Your task to perform on an android device: turn notification dots off Image 0: 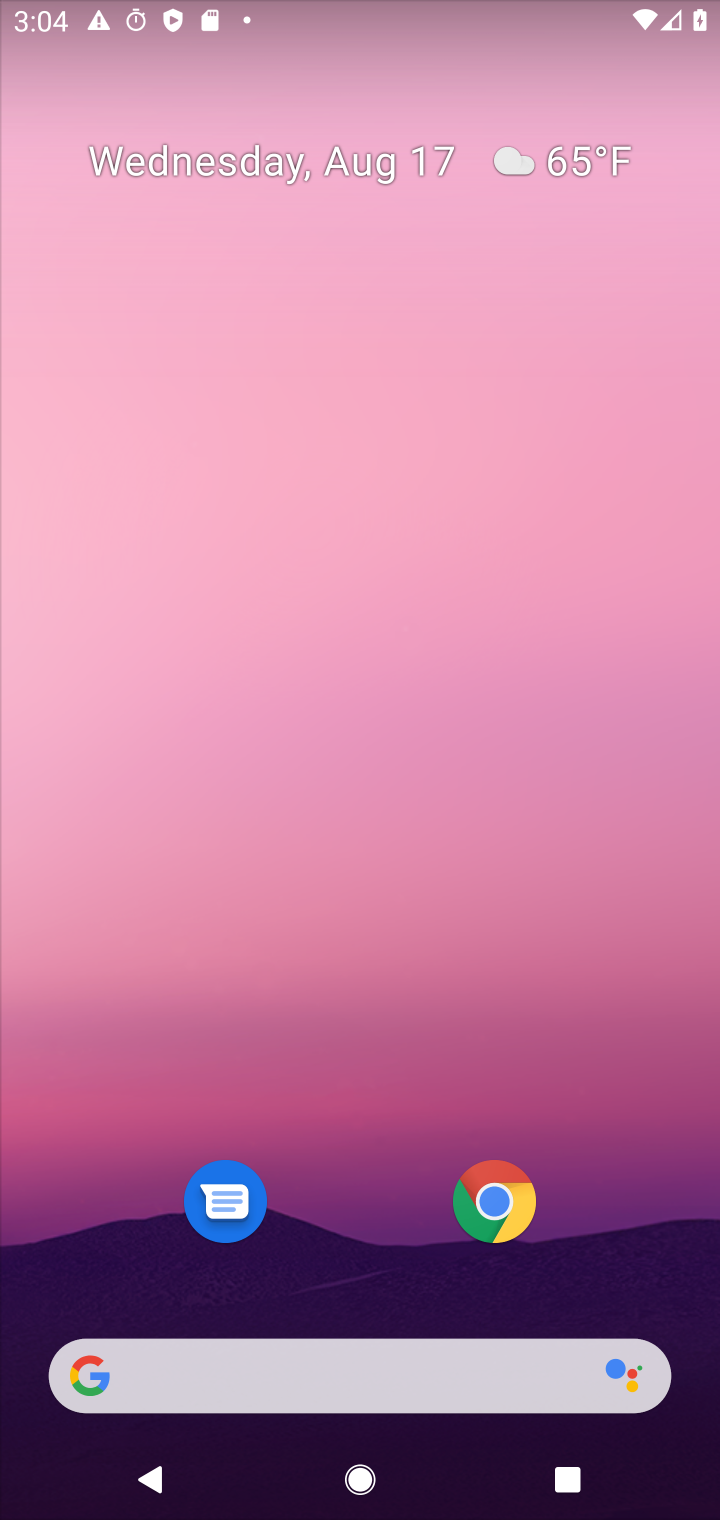
Step 0: drag from (344, 734) to (426, 113)
Your task to perform on an android device: turn notification dots off Image 1: 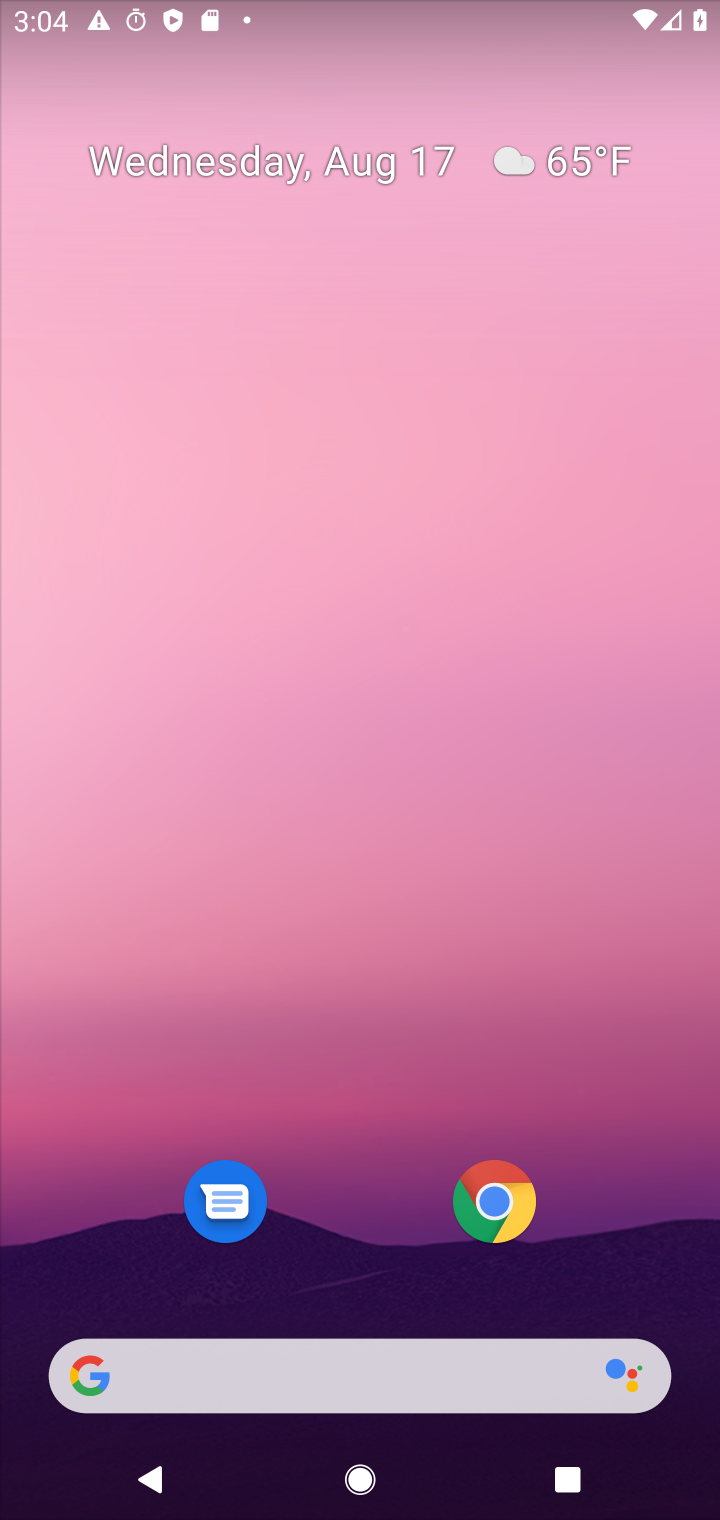
Step 1: drag from (424, 924) to (508, 7)
Your task to perform on an android device: turn notification dots off Image 2: 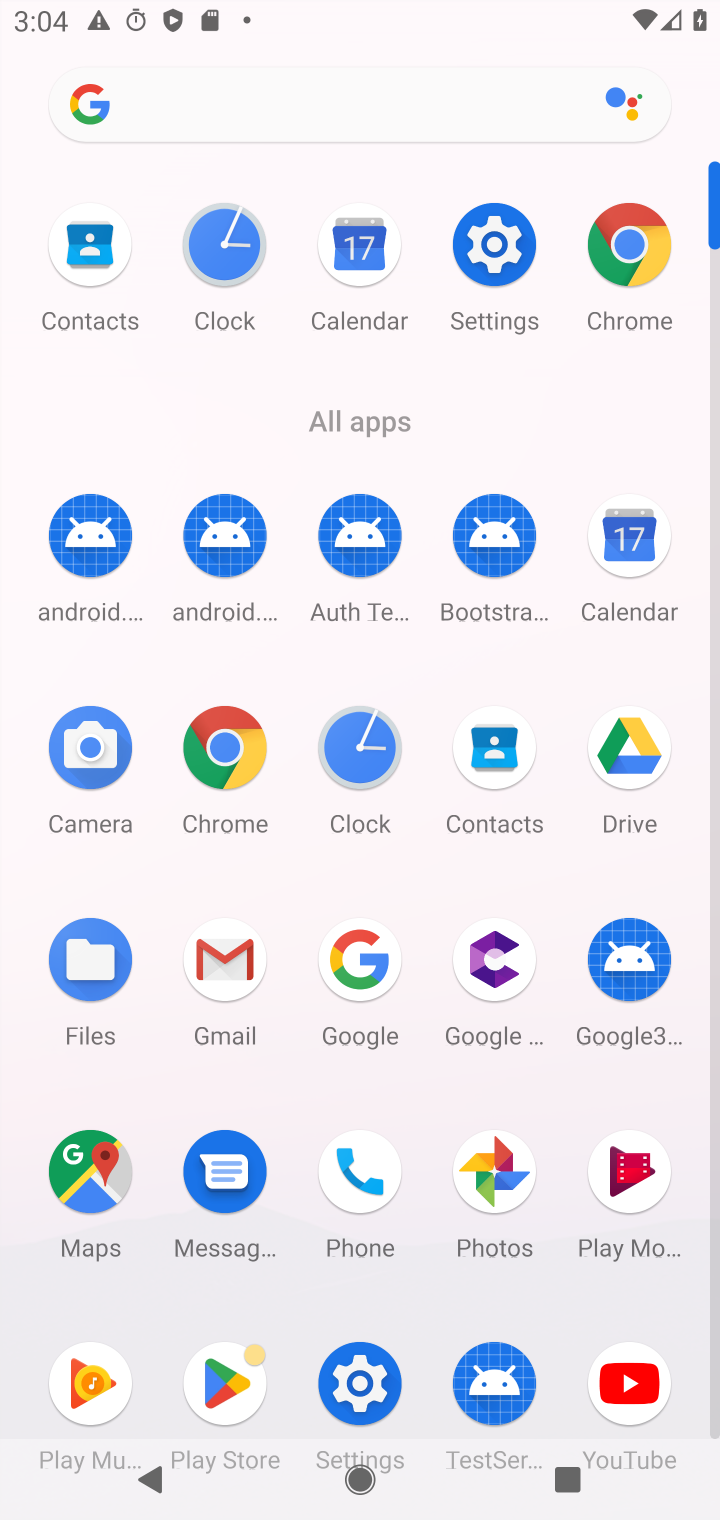
Step 2: click (505, 231)
Your task to perform on an android device: turn notification dots off Image 3: 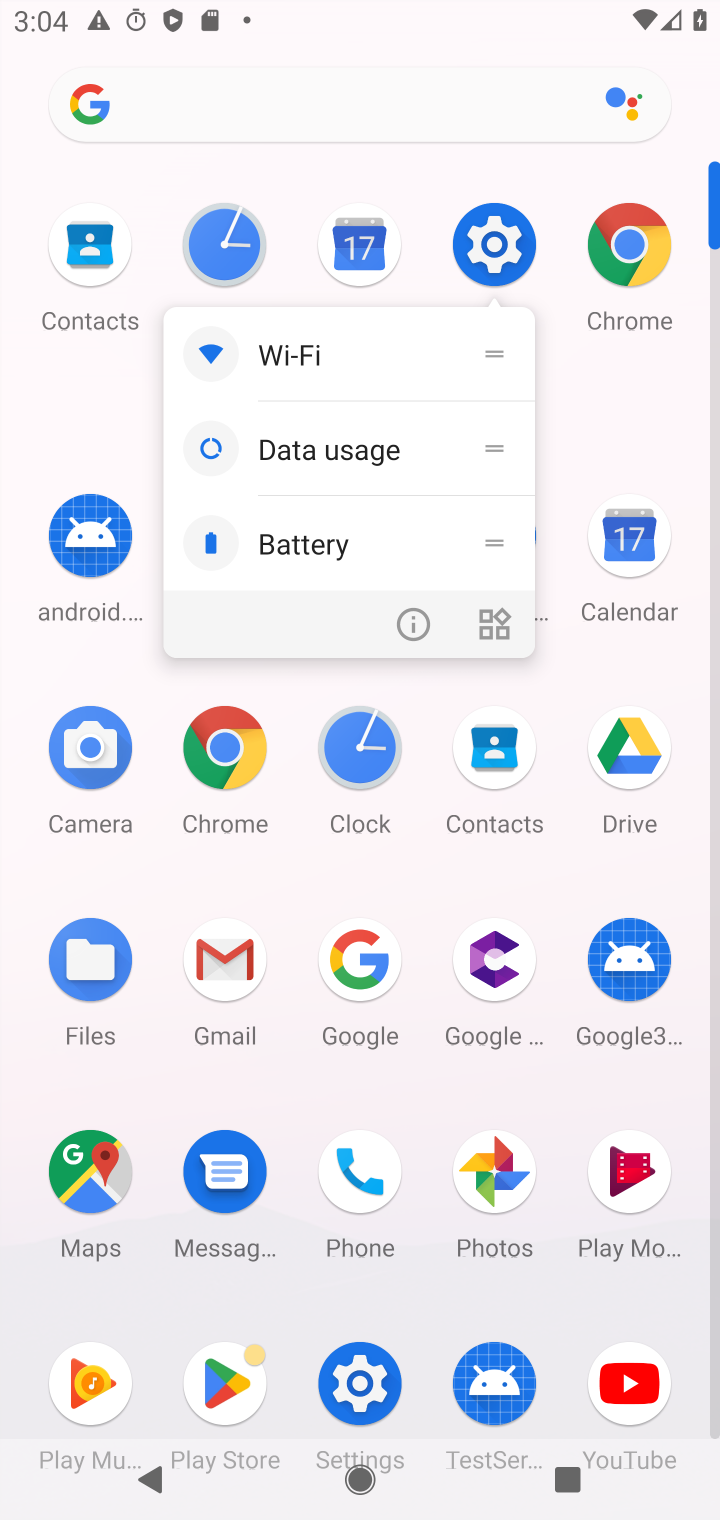
Step 3: click (505, 231)
Your task to perform on an android device: turn notification dots off Image 4: 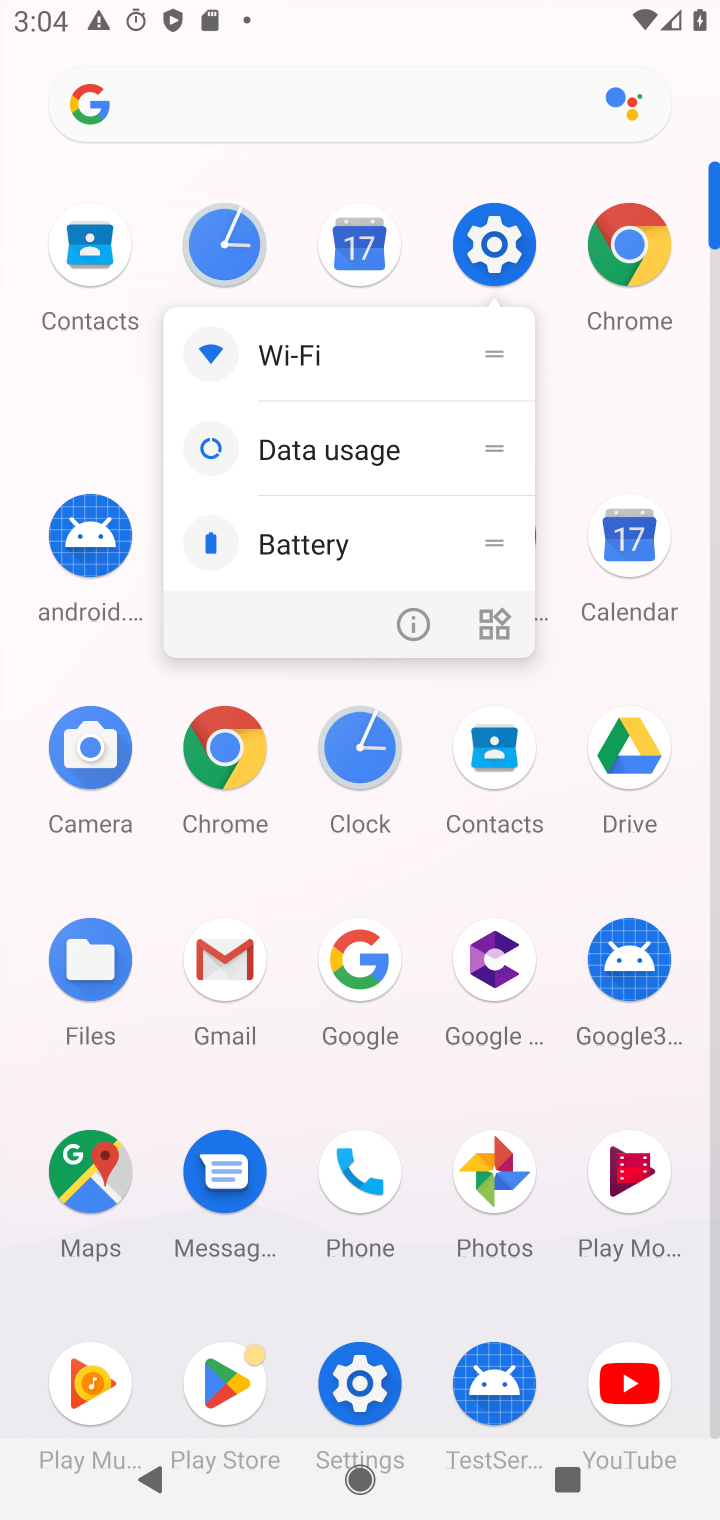
Step 4: click (515, 239)
Your task to perform on an android device: turn notification dots off Image 5: 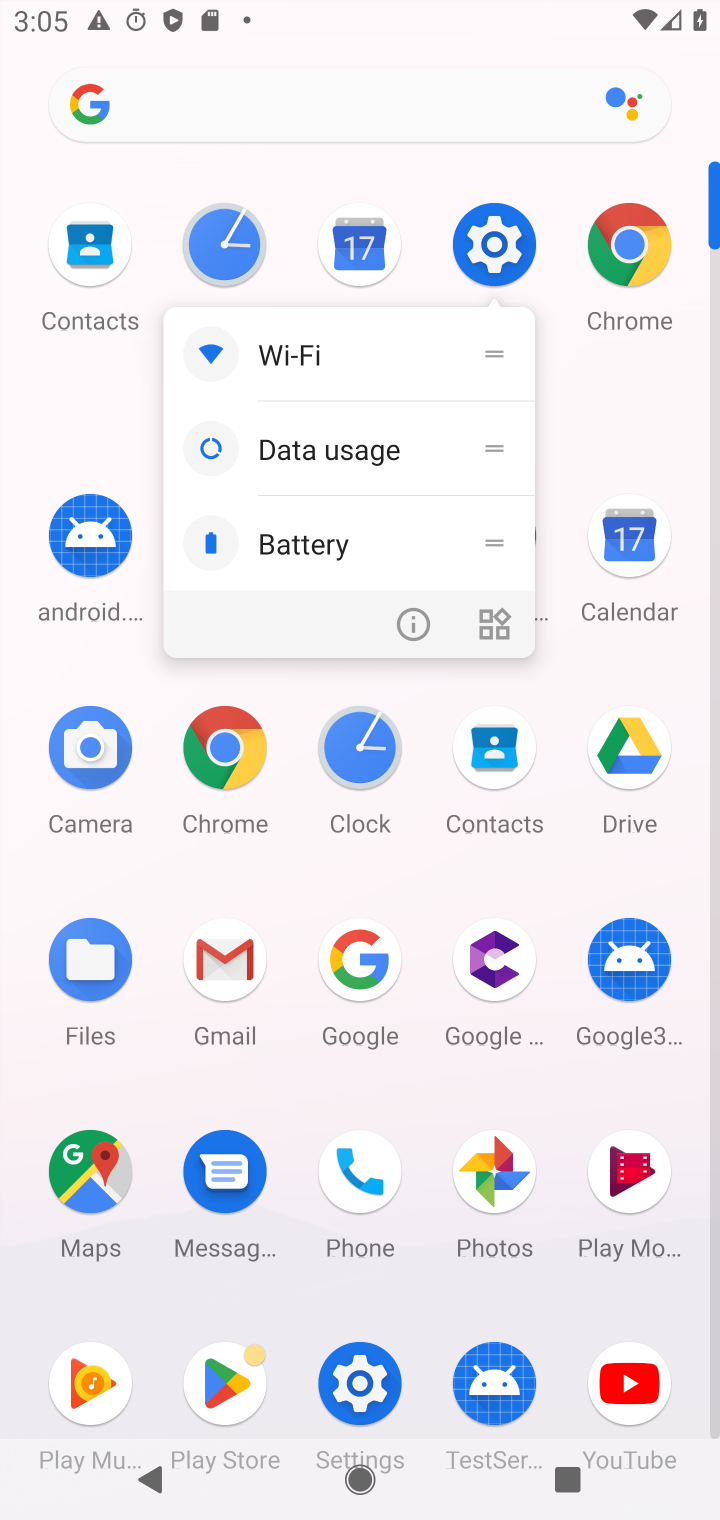
Step 5: click (501, 235)
Your task to perform on an android device: turn notification dots off Image 6: 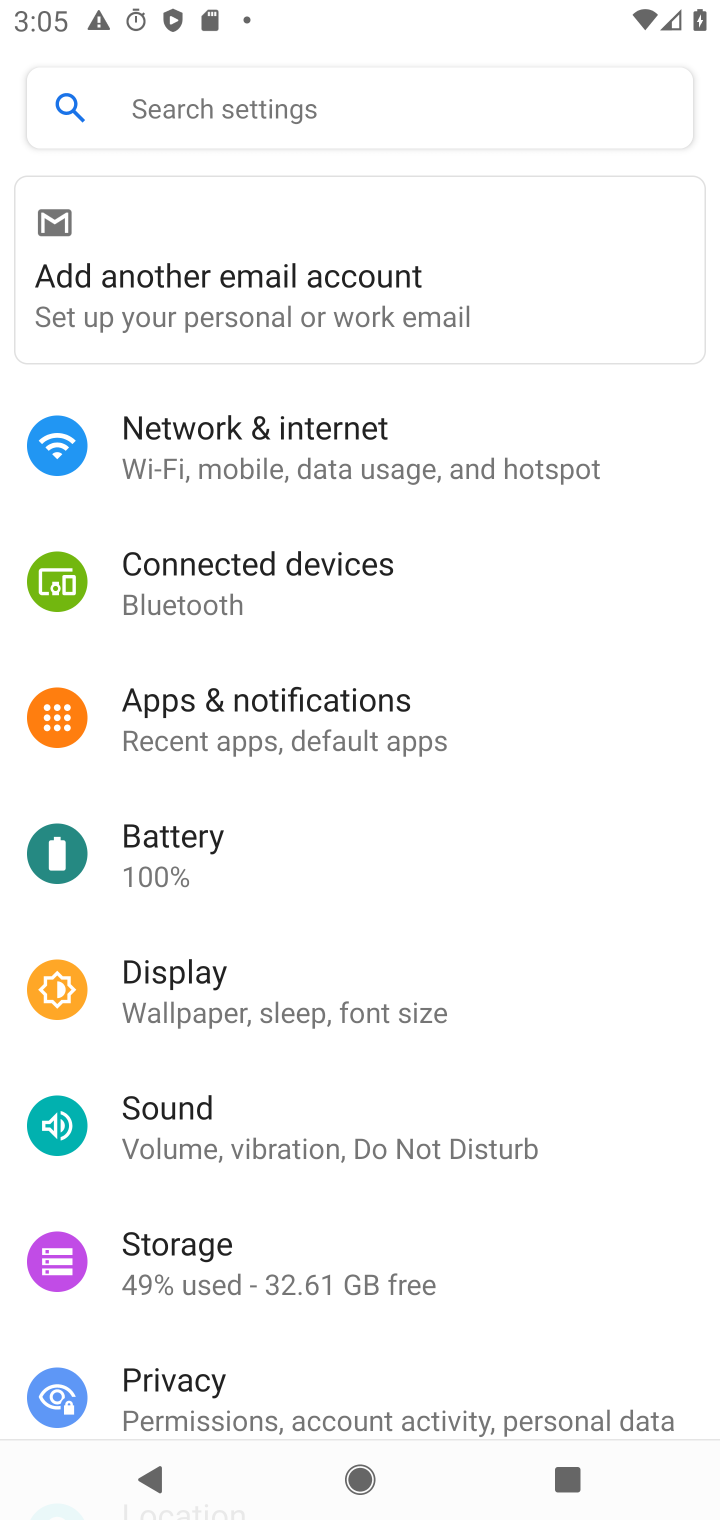
Step 6: click (378, 514)
Your task to perform on an android device: turn notification dots off Image 7: 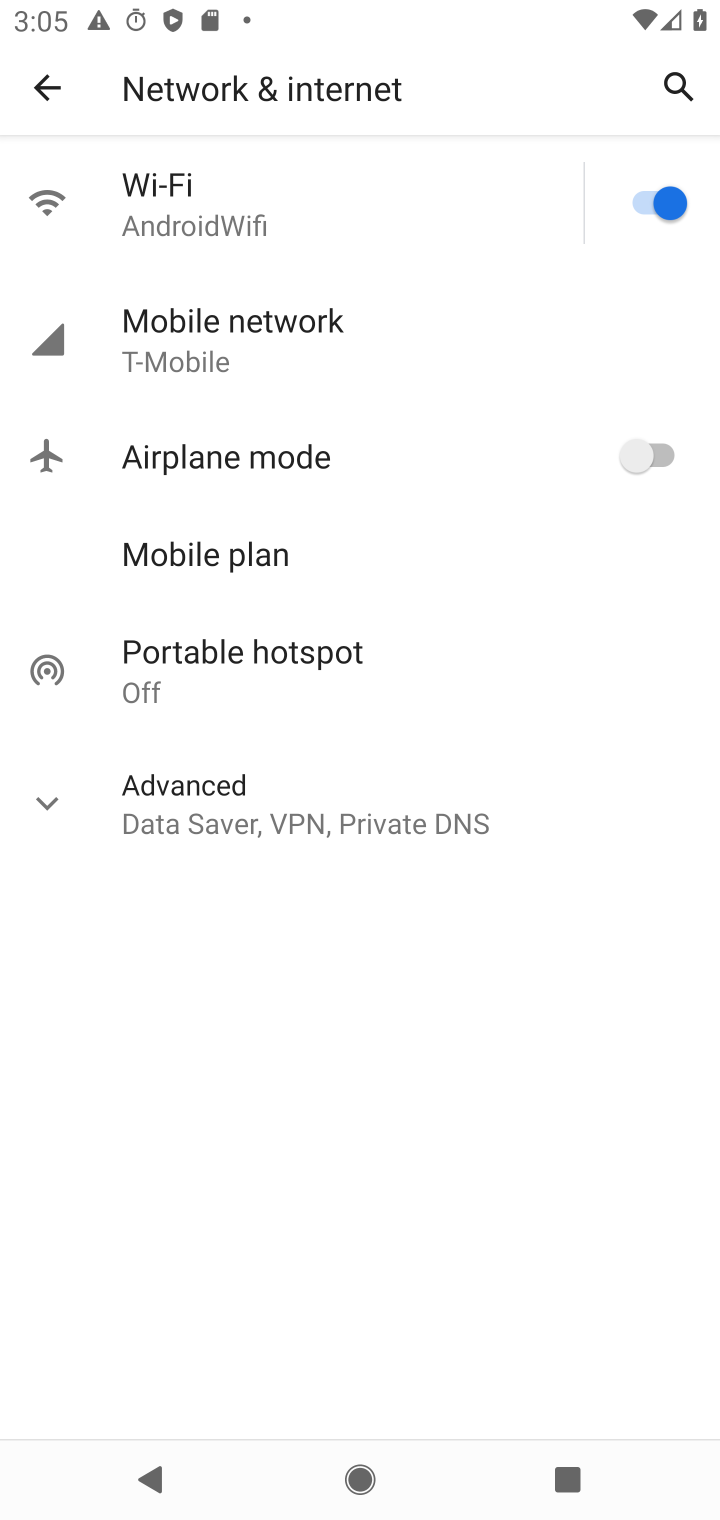
Step 7: press back button
Your task to perform on an android device: turn notification dots off Image 8: 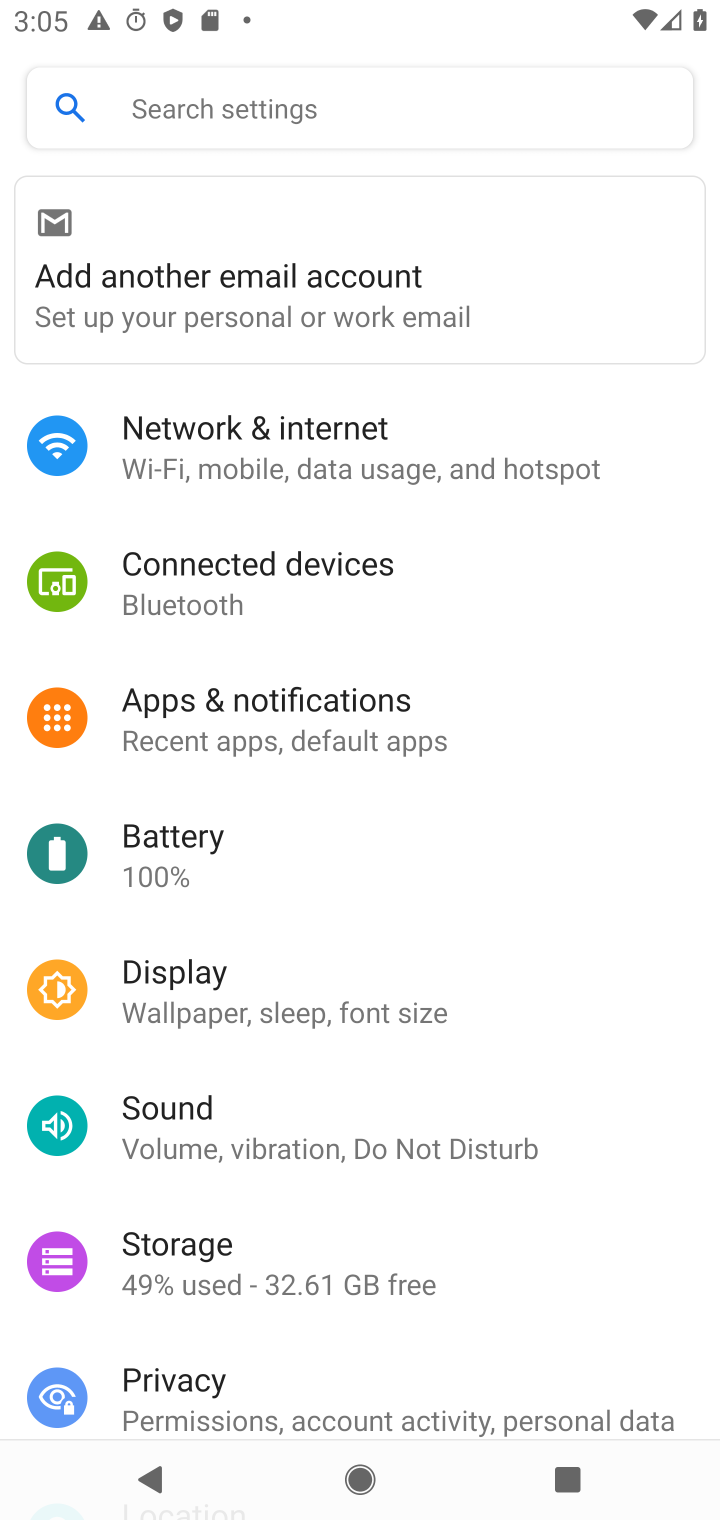
Step 8: click (487, 699)
Your task to perform on an android device: turn notification dots off Image 9: 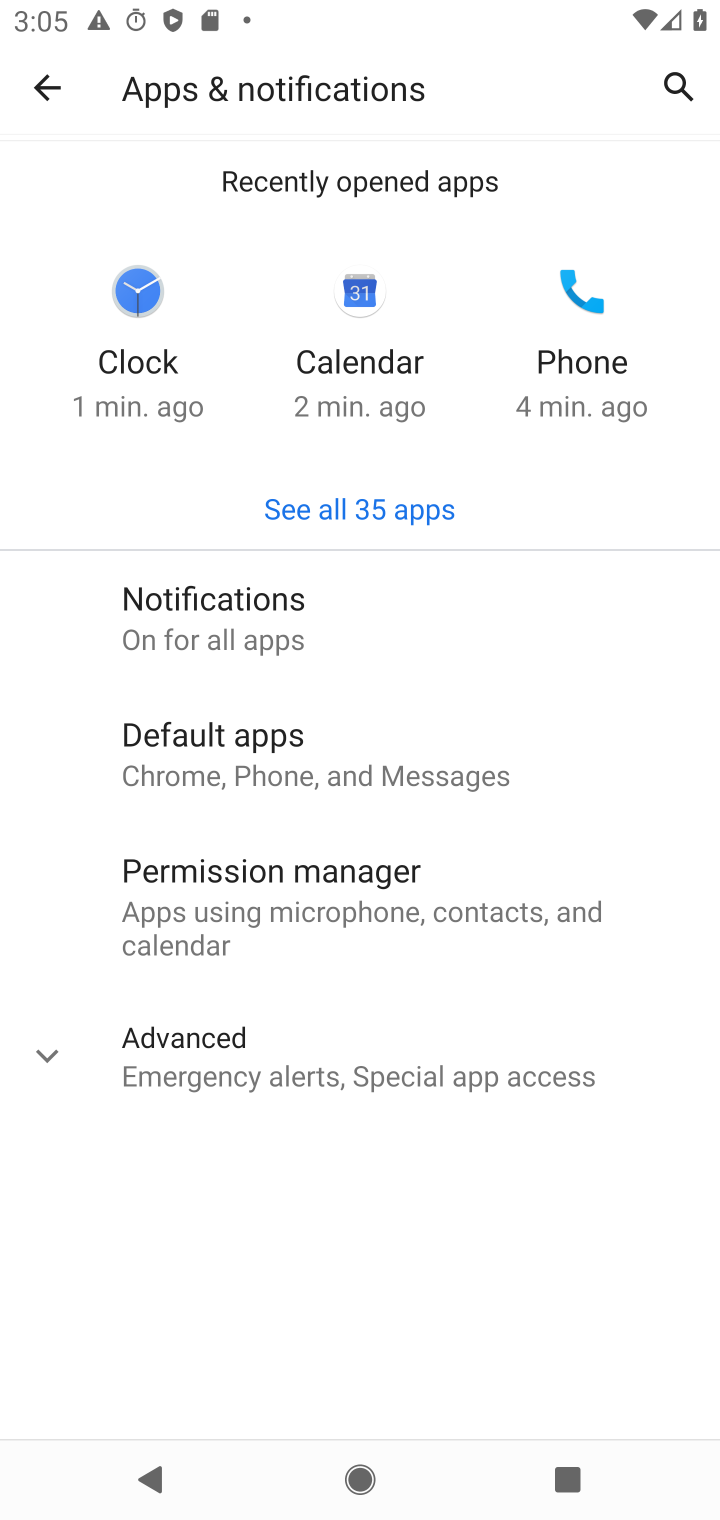
Step 9: click (487, 691)
Your task to perform on an android device: turn notification dots off Image 10: 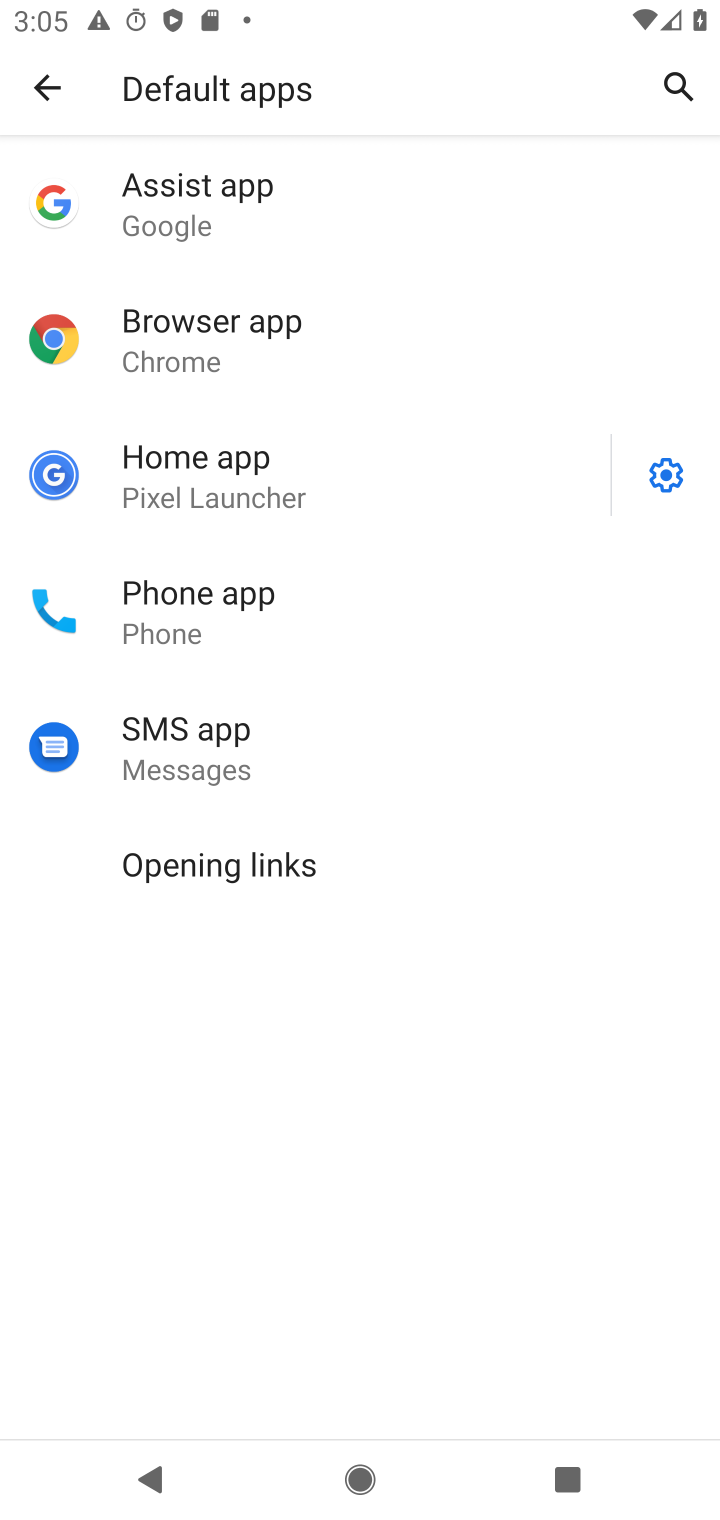
Step 10: press back button
Your task to perform on an android device: turn notification dots off Image 11: 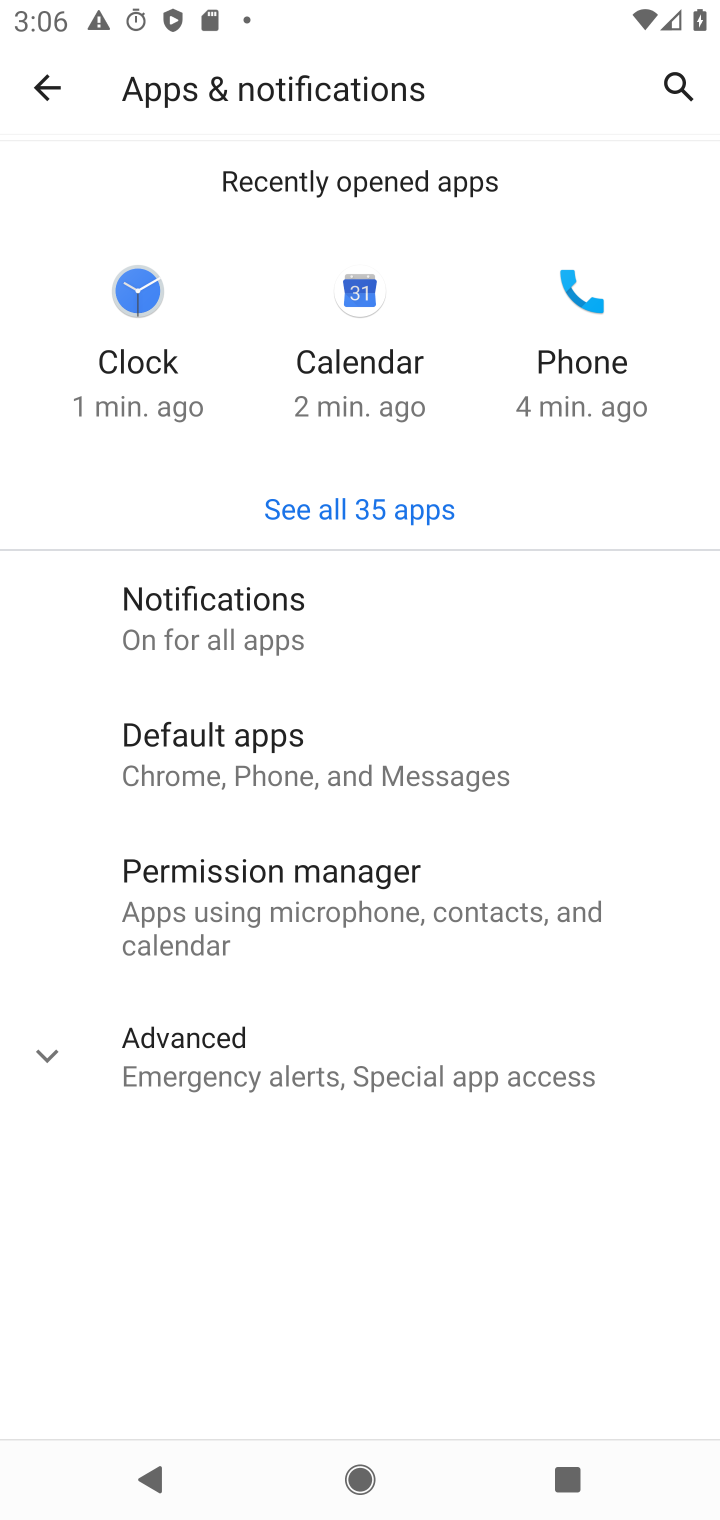
Step 11: click (348, 581)
Your task to perform on an android device: turn notification dots off Image 12: 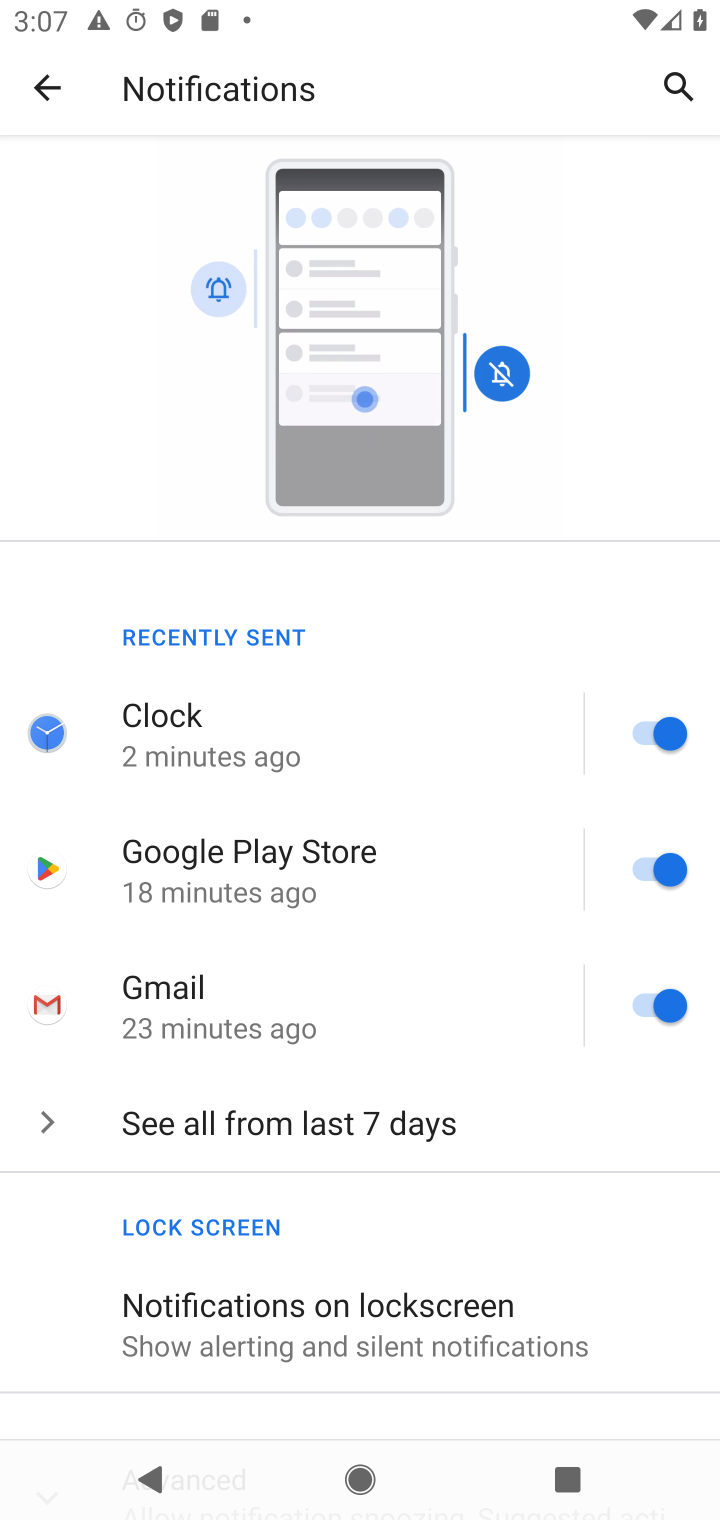
Step 12: drag from (305, 1301) to (430, 59)
Your task to perform on an android device: turn notification dots off Image 13: 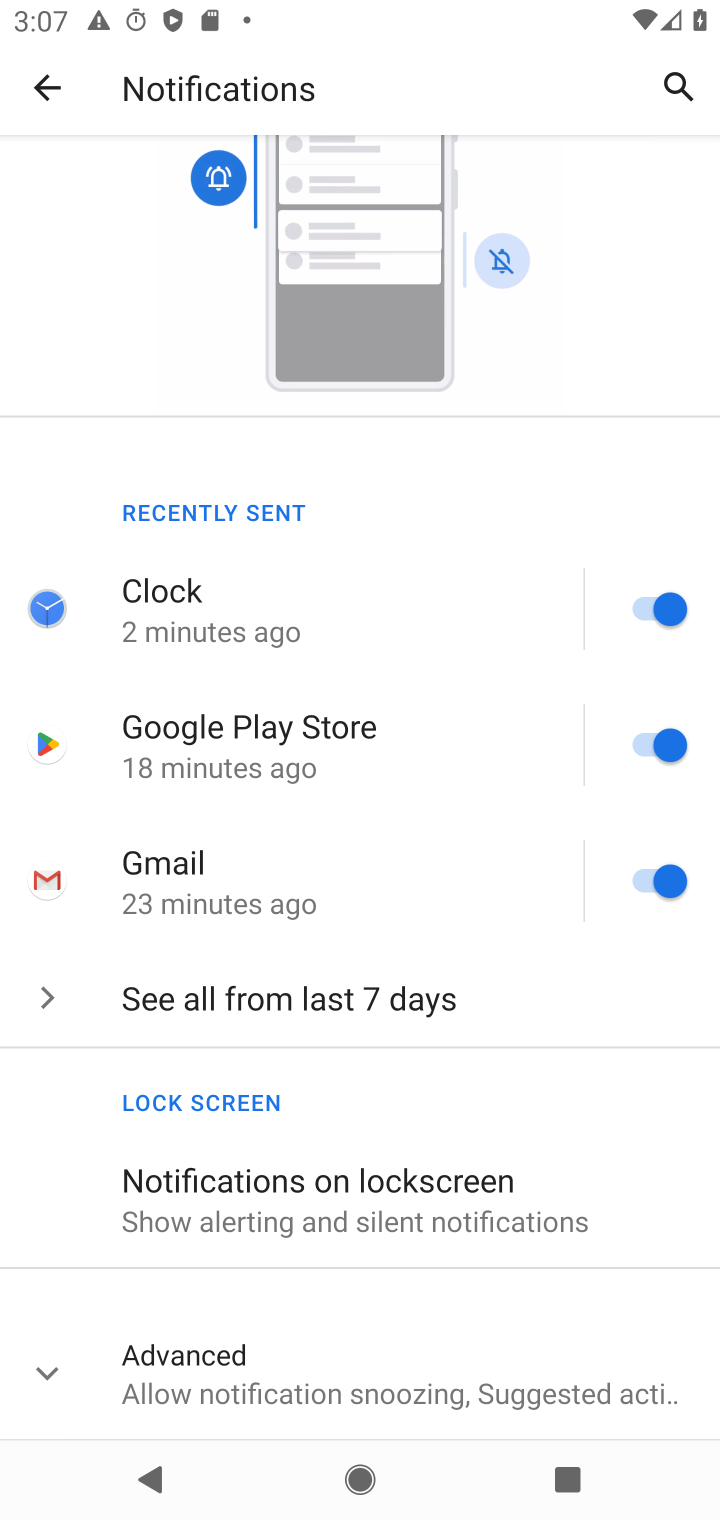
Step 13: click (274, 1324)
Your task to perform on an android device: turn notification dots off Image 14: 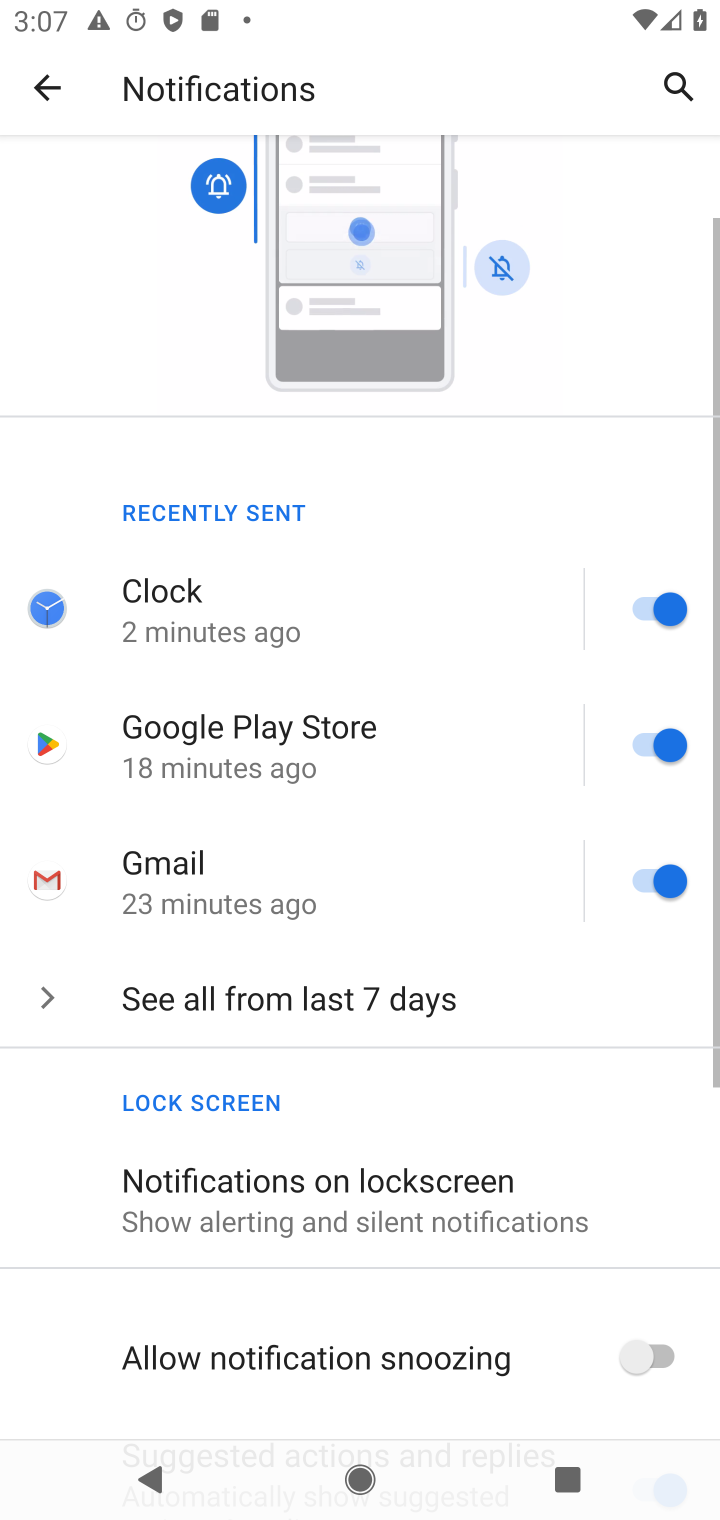
Step 14: drag from (341, 618) to (359, 267)
Your task to perform on an android device: turn notification dots off Image 15: 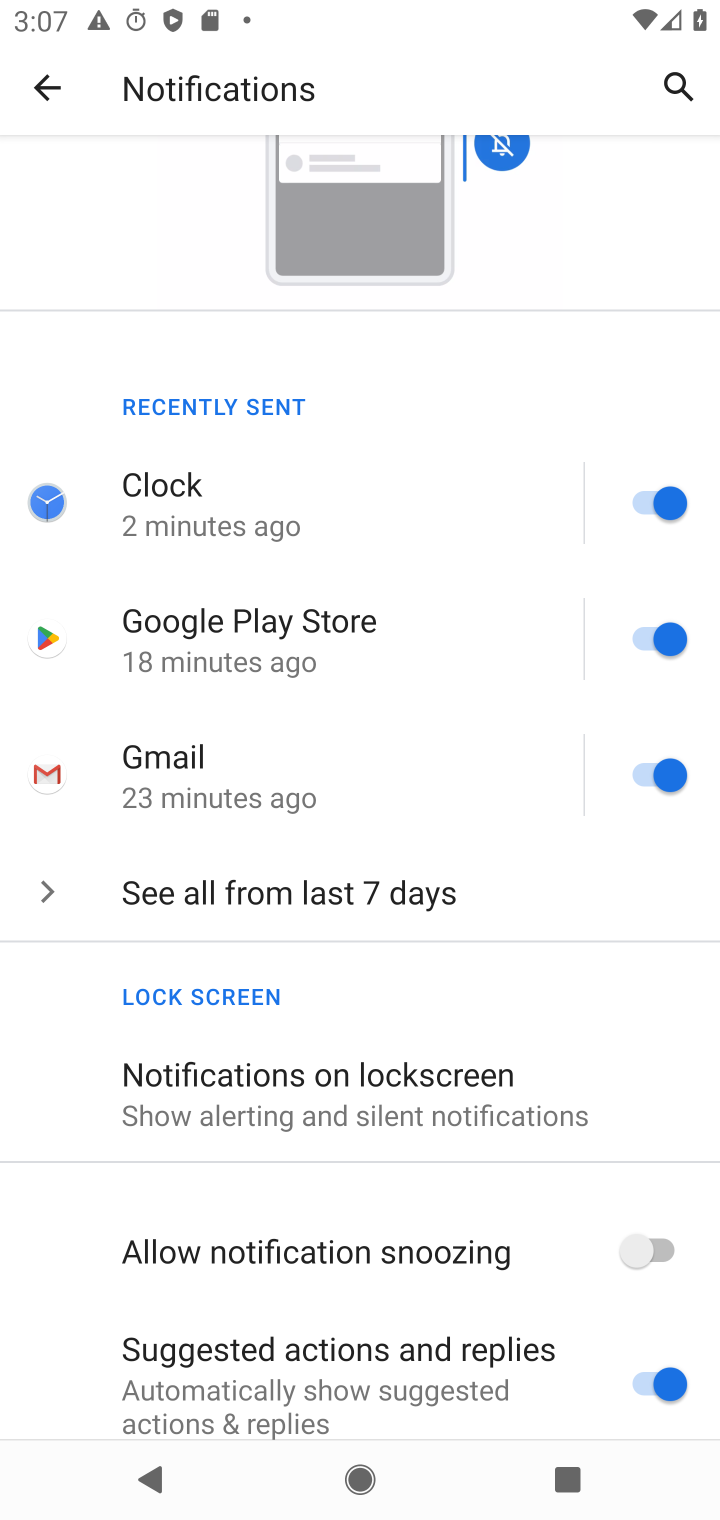
Step 15: drag from (39, 1237) to (135, 272)
Your task to perform on an android device: turn notification dots off Image 16: 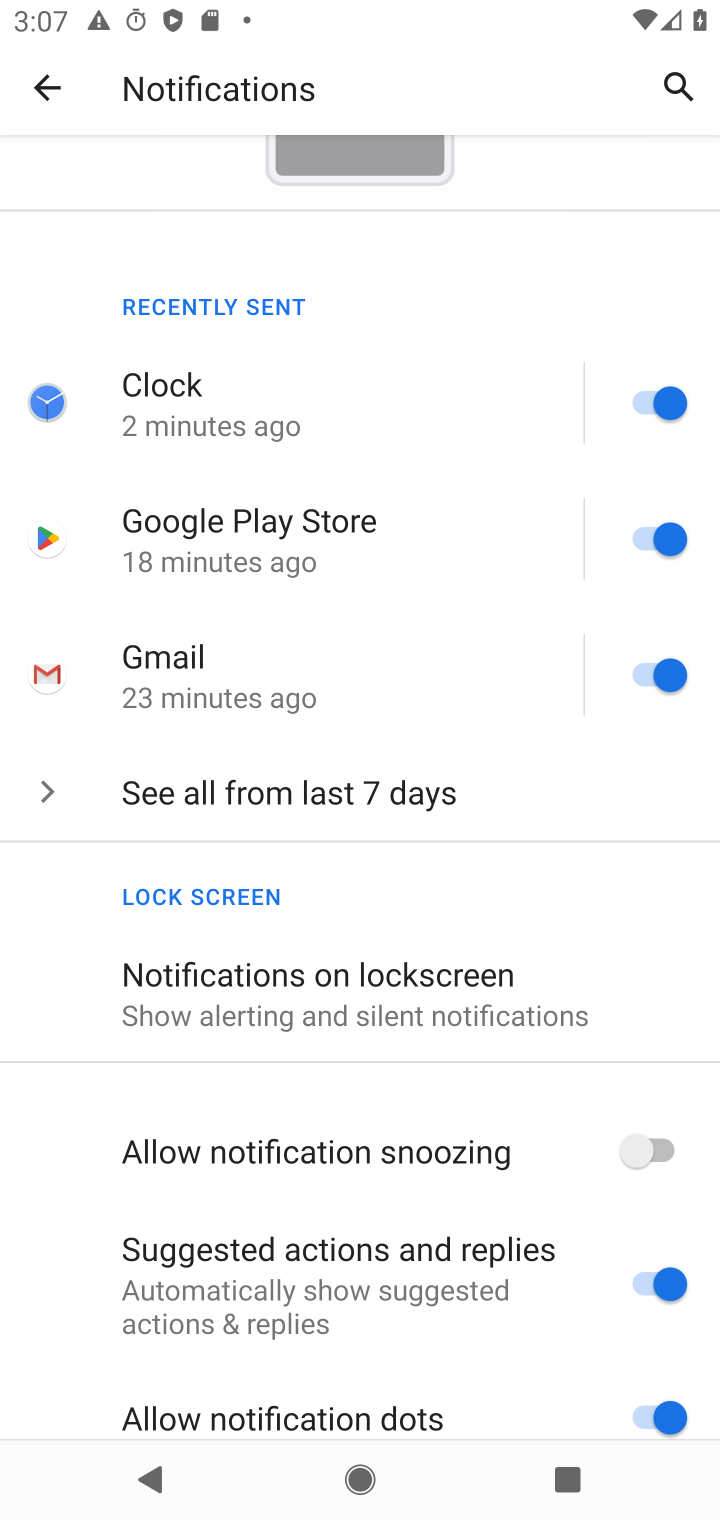
Step 16: click (659, 1419)
Your task to perform on an android device: turn notification dots off Image 17: 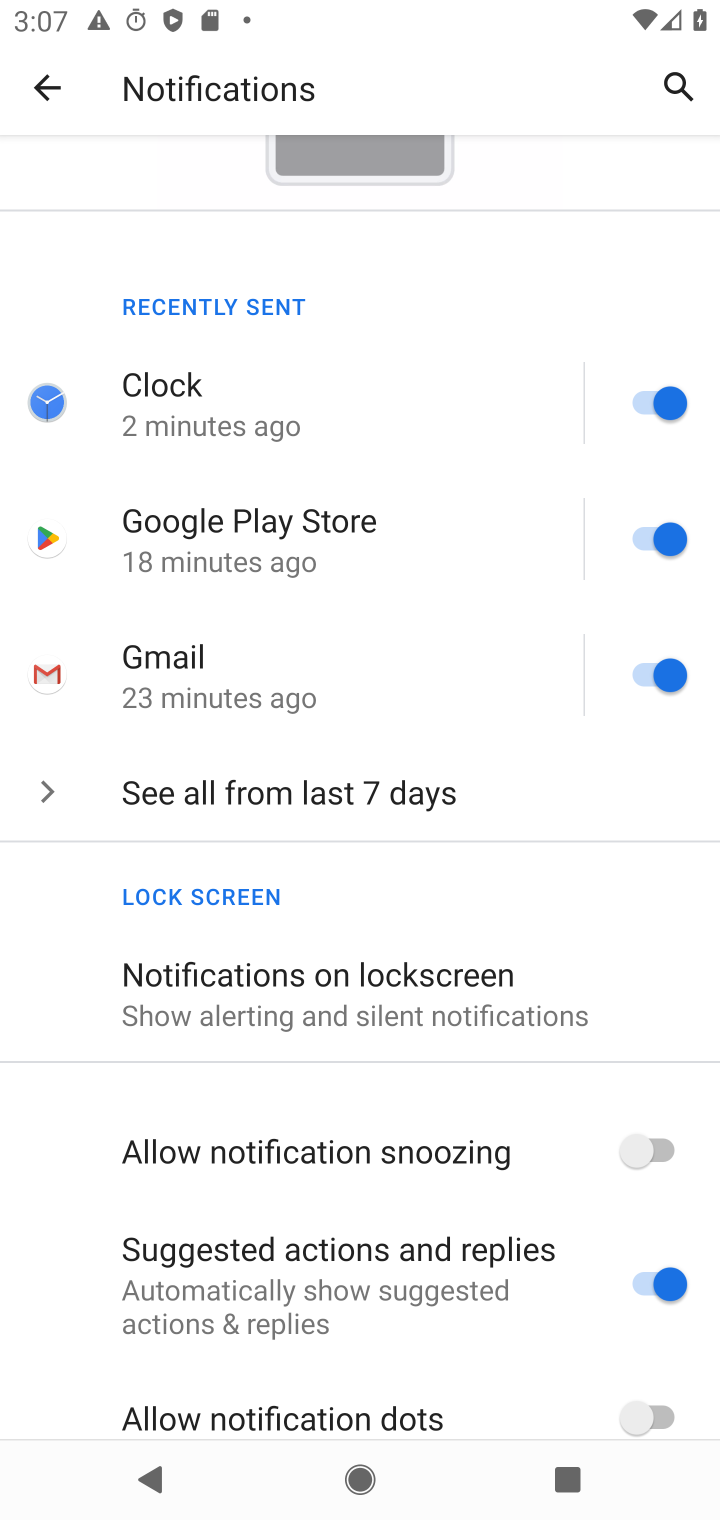
Step 17: task complete